Your task to perform on an android device: Open Maps and search for coffee Image 0: 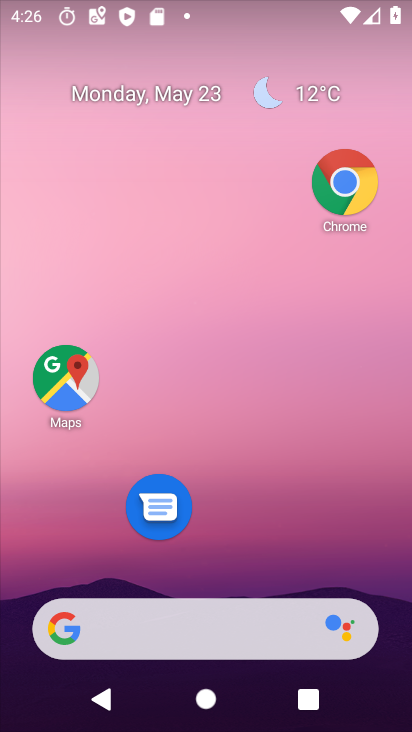
Step 0: click (48, 346)
Your task to perform on an android device: Open Maps and search for coffee Image 1: 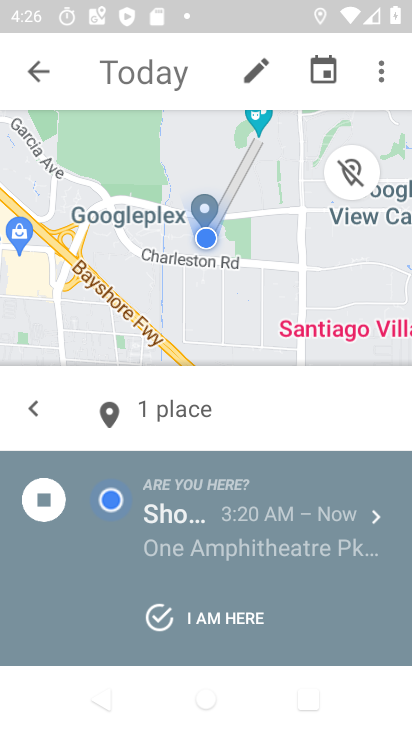
Step 1: click (31, 69)
Your task to perform on an android device: Open Maps and search for coffee Image 2: 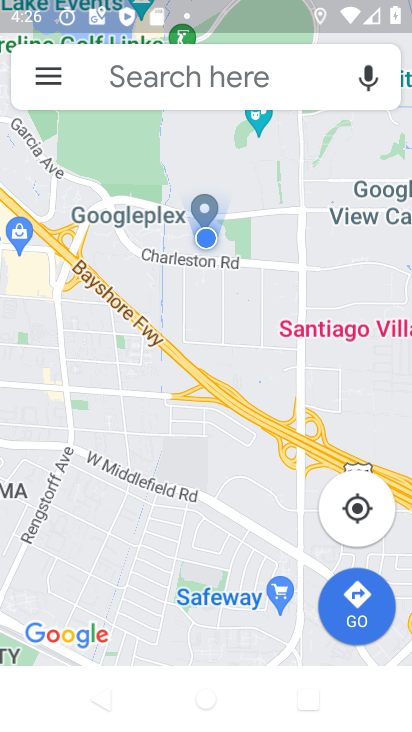
Step 2: click (180, 47)
Your task to perform on an android device: Open Maps and search for coffee Image 3: 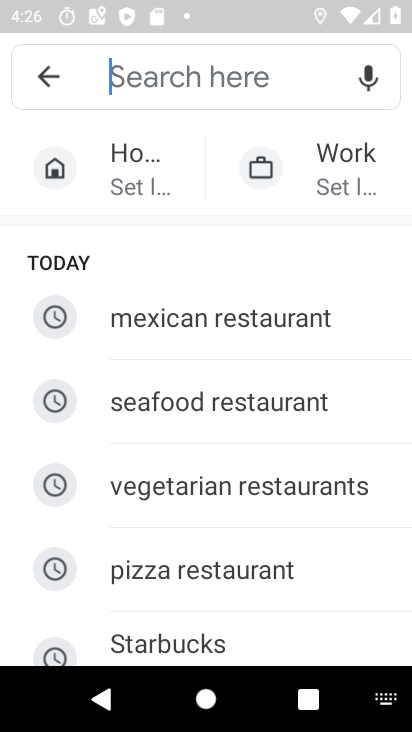
Step 3: type "coffee"
Your task to perform on an android device: Open Maps and search for coffee Image 4: 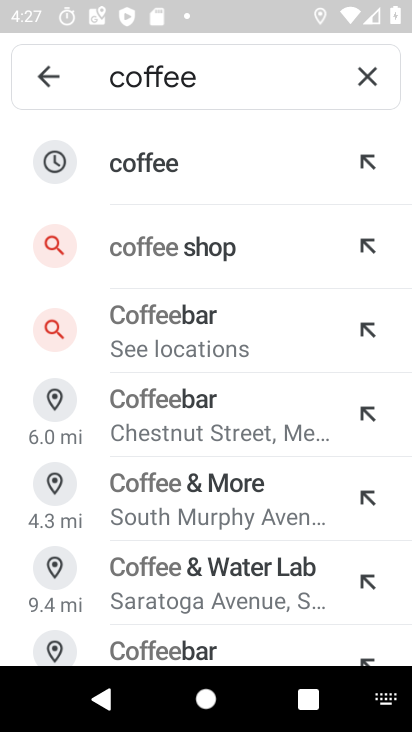
Step 4: click (157, 235)
Your task to perform on an android device: Open Maps and search for coffee Image 5: 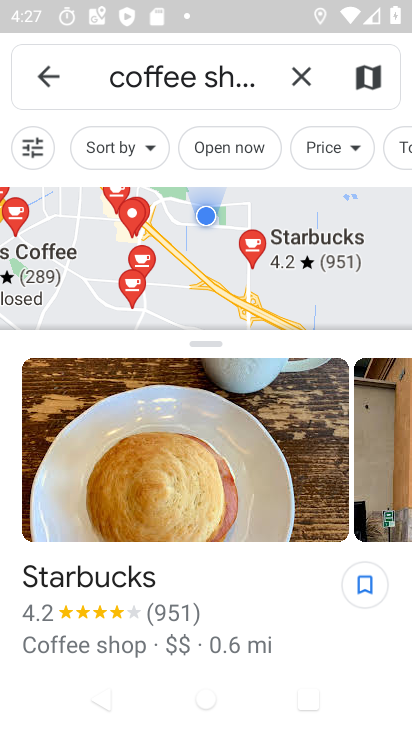
Step 5: task complete